Your task to perform on an android device: Open Chrome and go to the settings page Image 0: 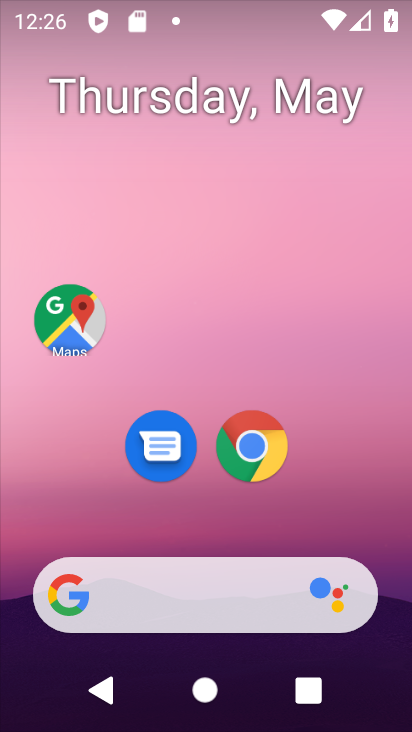
Step 0: drag from (342, 489) to (372, 117)
Your task to perform on an android device: Open Chrome and go to the settings page Image 1: 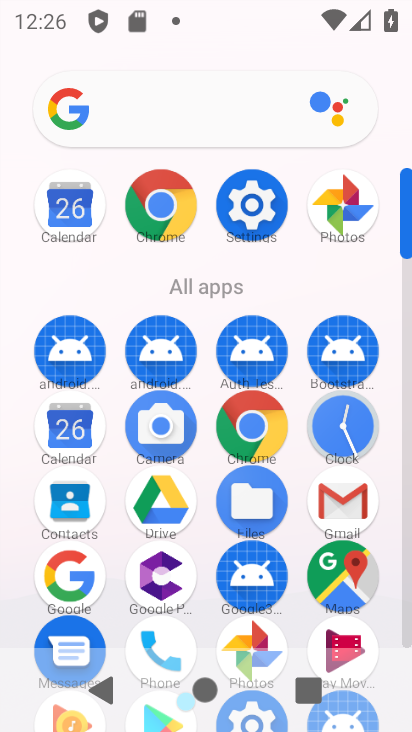
Step 1: click (252, 426)
Your task to perform on an android device: Open Chrome and go to the settings page Image 2: 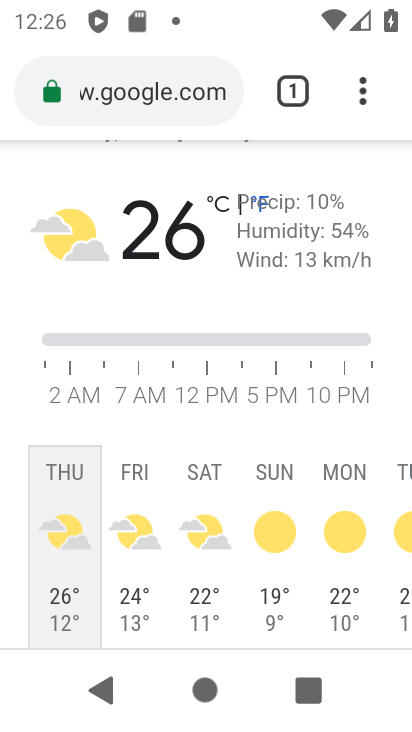
Step 2: task complete